Your task to perform on an android device: Add logitech g pro to the cart on ebay.com, then select checkout. Image 0: 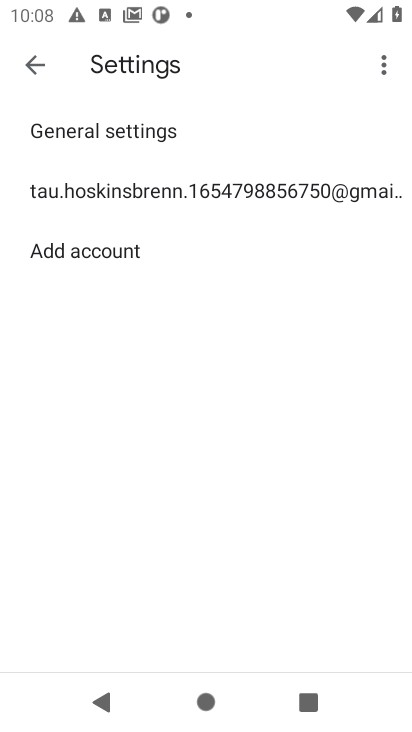
Step 0: press home button
Your task to perform on an android device: Add logitech g pro to the cart on ebay.com, then select checkout. Image 1: 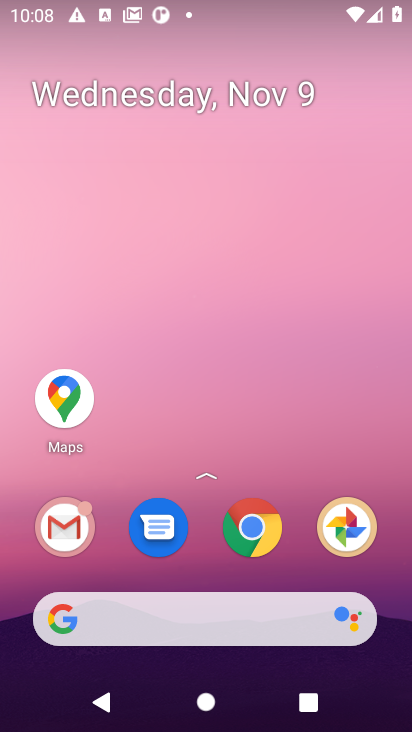
Step 1: click (254, 530)
Your task to perform on an android device: Add logitech g pro to the cart on ebay.com, then select checkout. Image 2: 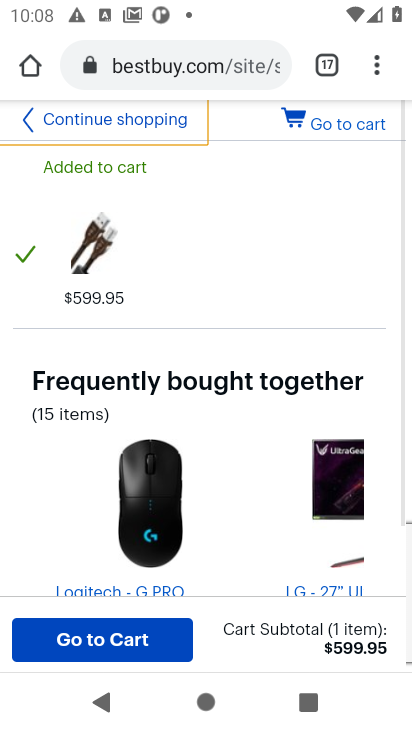
Step 2: click (155, 64)
Your task to perform on an android device: Add logitech g pro to the cart on ebay.com, then select checkout. Image 3: 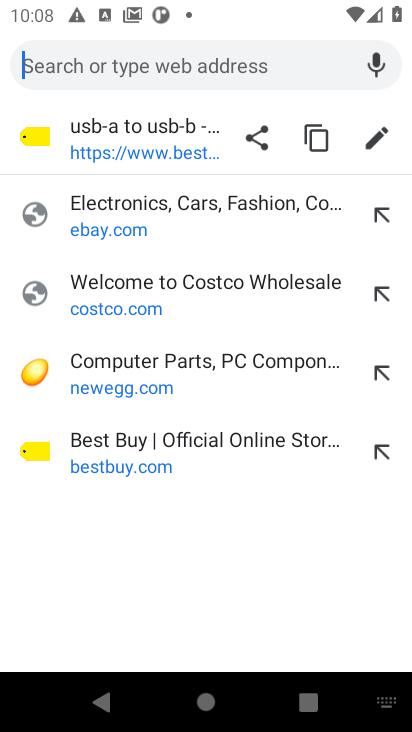
Step 3: click (97, 227)
Your task to perform on an android device: Add logitech g pro to the cart on ebay.com, then select checkout. Image 4: 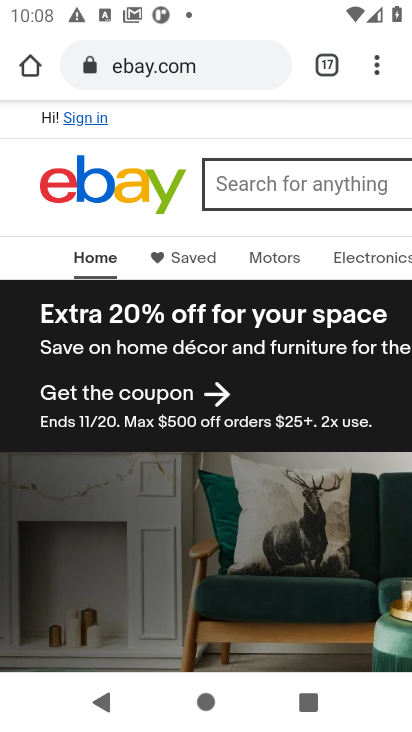
Step 4: click (247, 189)
Your task to perform on an android device: Add logitech g pro to the cart on ebay.com, then select checkout. Image 5: 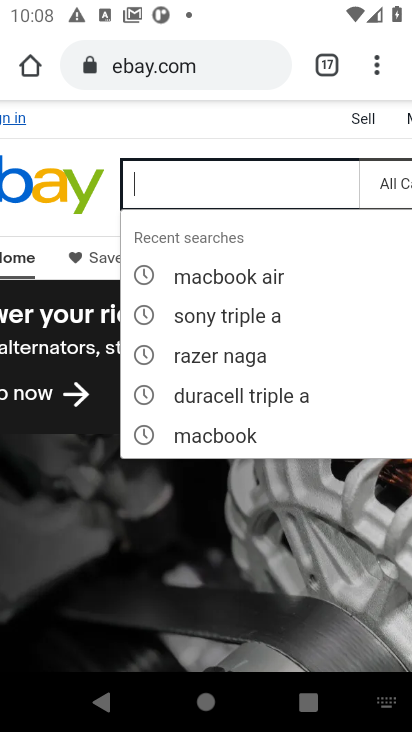
Step 5: type "logitech g pro"
Your task to perform on an android device: Add logitech g pro to the cart on ebay.com, then select checkout. Image 6: 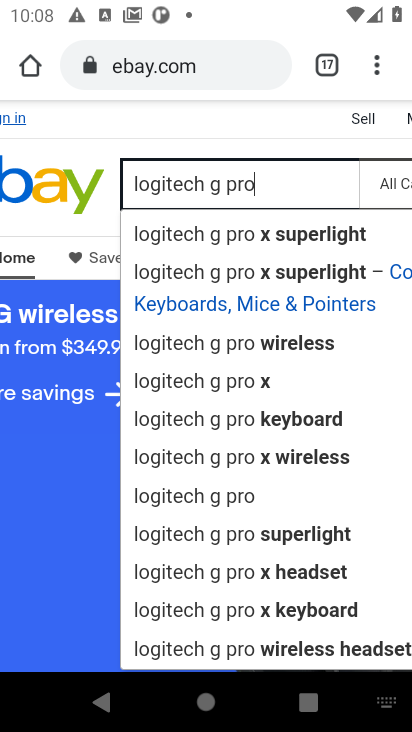
Step 6: click (183, 500)
Your task to perform on an android device: Add logitech g pro to the cart on ebay.com, then select checkout. Image 7: 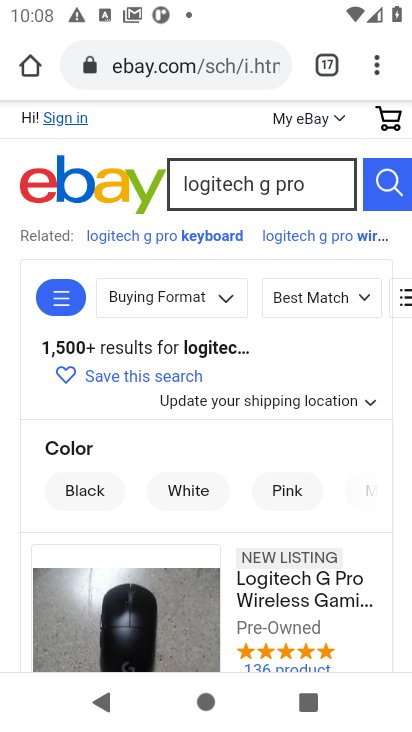
Step 7: drag from (176, 463) to (159, 271)
Your task to perform on an android device: Add logitech g pro to the cart on ebay.com, then select checkout. Image 8: 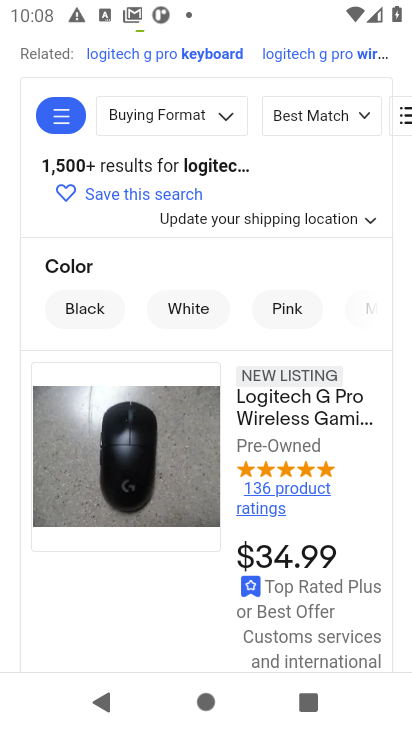
Step 8: drag from (155, 462) to (140, 273)
Your task to perform on an android device: Add logitech g pro to the cart on ebay.com, then select checkout. Image 9: 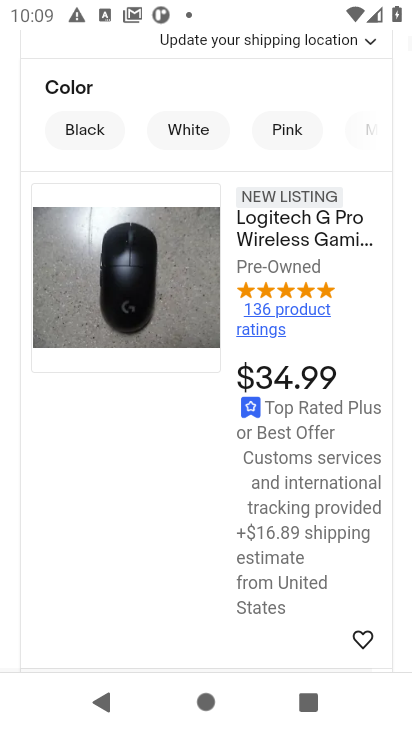
Step 9: click (135, 295)
Your task to perform on an android device: Add logitech g pro to the cart on ebay.com, then select checkout. Image 10: 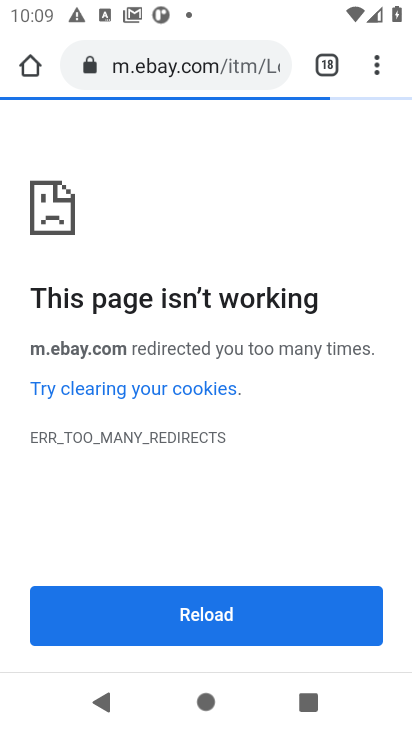
Step 10: task complete